Your task to perform on an android device: Check the news Image 0: 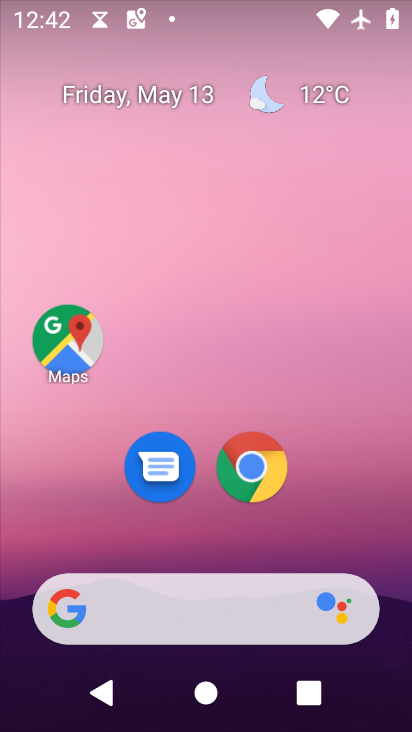
Step 0: drag from (329, 515) to (247, 90)
Your task to perform on an android device: Check the news Image 1: 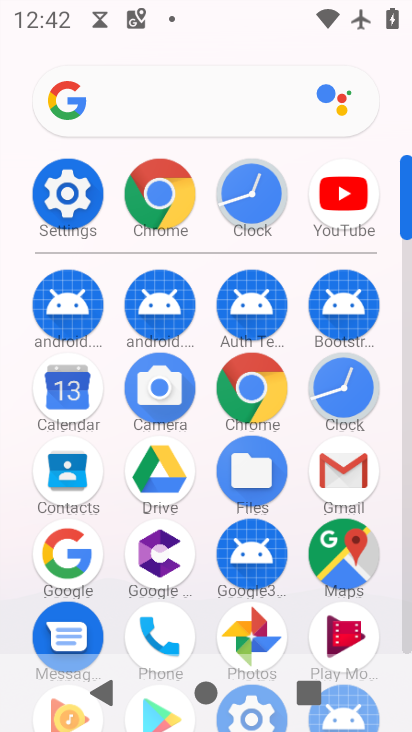
Step 1: click (71, 548)
Your task to perform on an android device: Check the news Image 2: 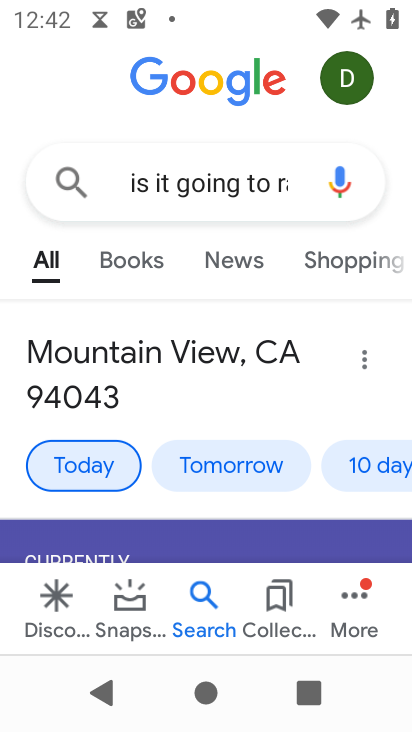
Step 2: click (227, 179)
Your task to perform on an android device: Check the news Image 3: 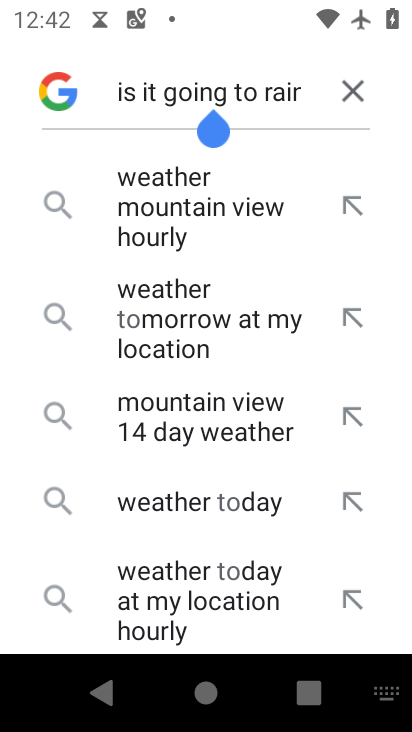
Step 3: click (346, 82)
Your task to perform on an android device: Check the news Image 4: 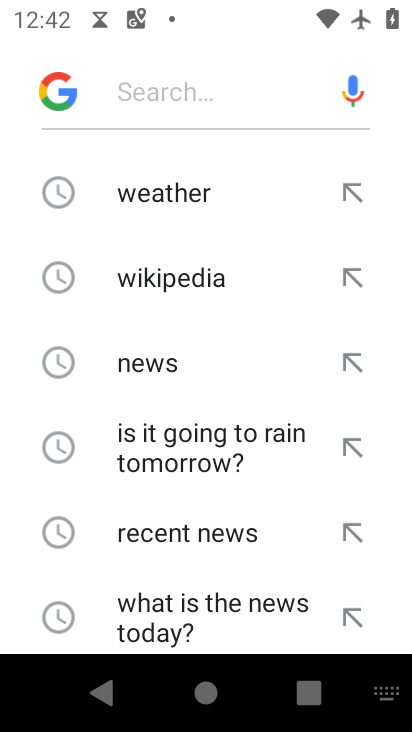
Step 4: click (186, 365)
Your task to perform on an android device: Check the news Image 5: 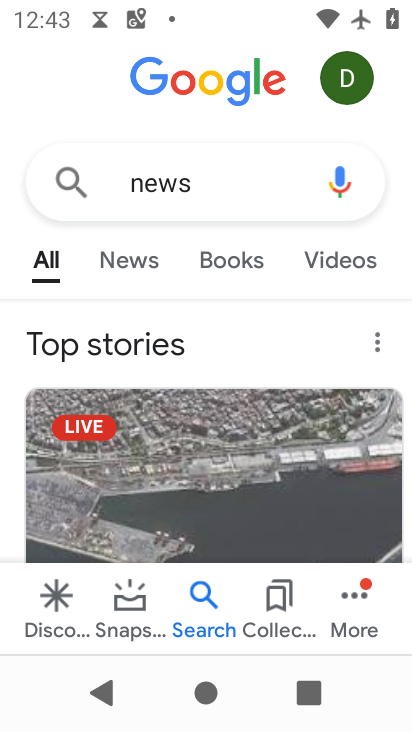
Step 5: click (133, 261)
Your task to perform on an android device: Check the news Image 6: 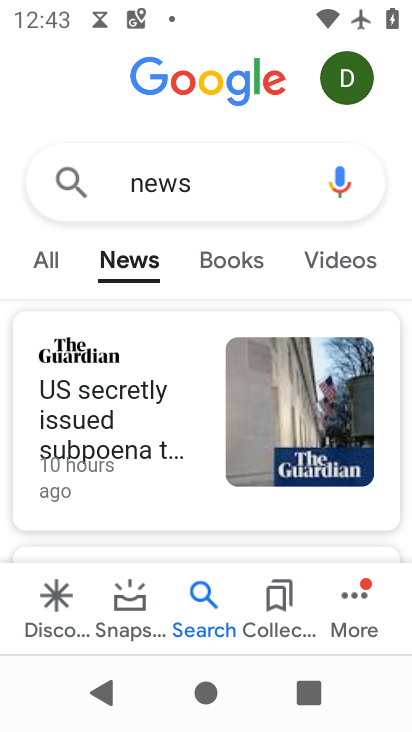
Step 6: task complete